Your task to perform on an android device: Open Amazon Image 0: 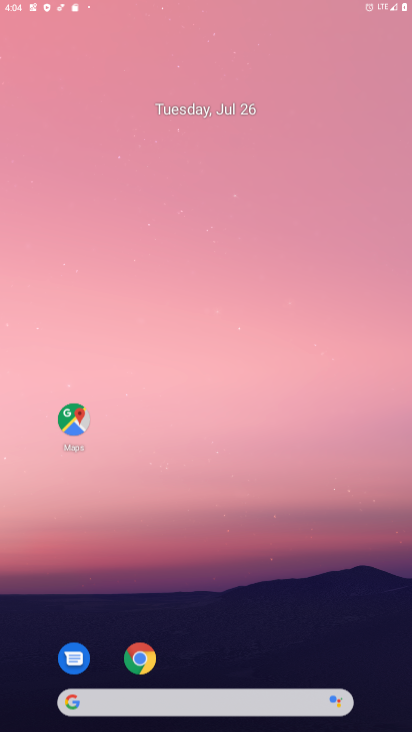
Step 0: press home button
Your task to perform on an android device: Open Amazon Image 1: 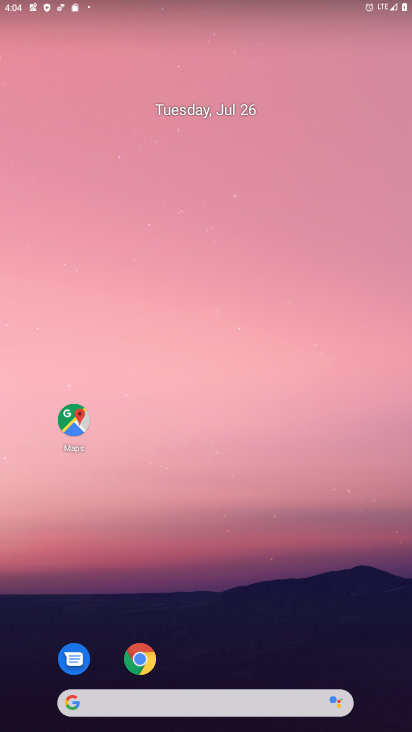
Step 1: click (69, 704)
Your task to perform on an android device: Open Amazon Image 2: 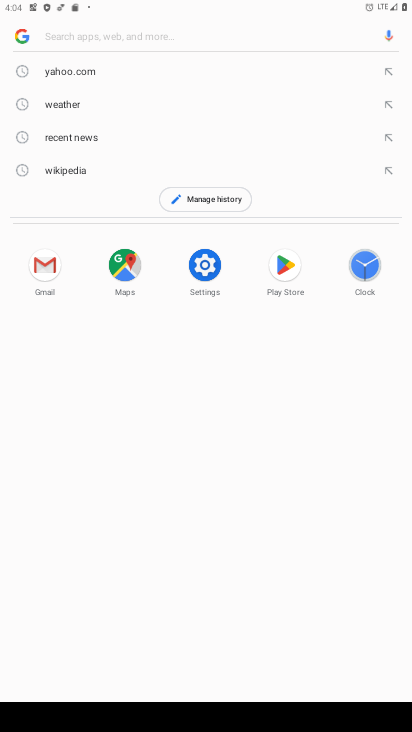
Step 2: type "Amazon"
Your task to perform on an android device: Open Amazon Image 3: 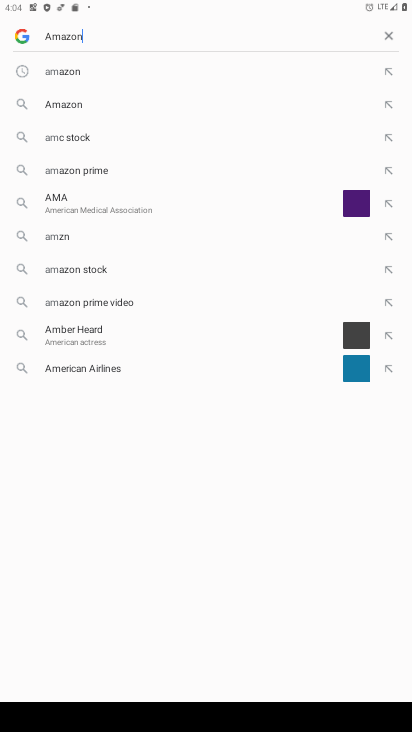
Step 3: press enter
Your task to perform on an android device: Open Amazon Image 4: 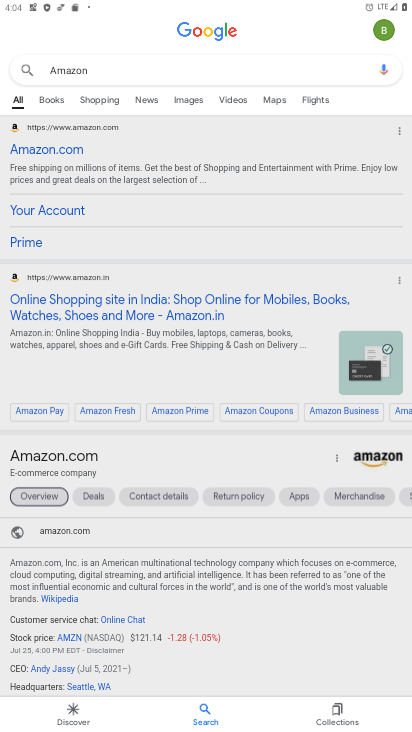
Step 4: click (169, 299)
Your task to perform on an android device: Open Amazon Image 5: 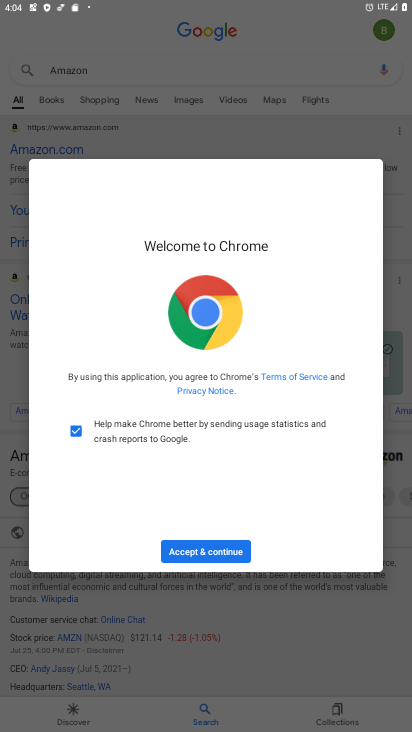
Step 5: click (201, 549)
Your task to perform on an android device: Open Amazon Image 6: 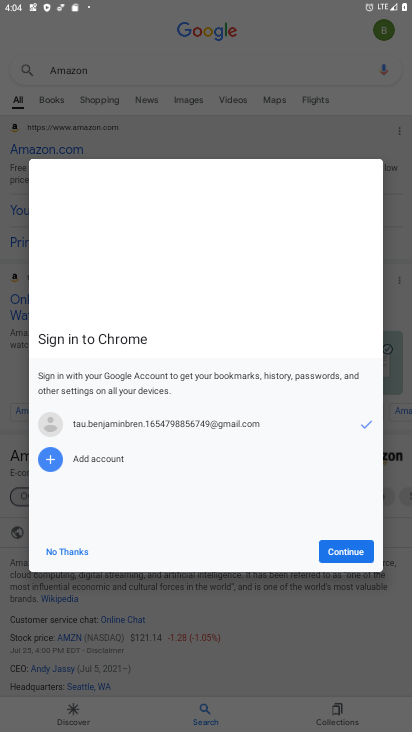
Step 6: click (337, 543)
Your task to perform on an android device: Open Amazon Image 7: 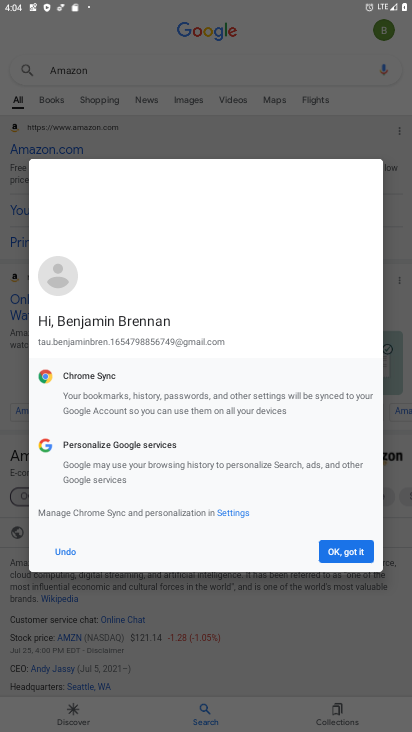
Step 7: click (337, 543)
Your task to perform on an android device: Open Amazon Image 8: 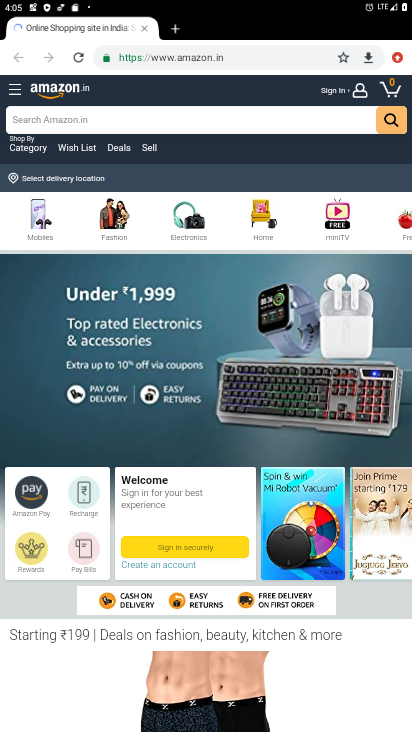
Step 8: task complete